Your task to perform on an android device: stop showing notifications on the lock screen Image 0: 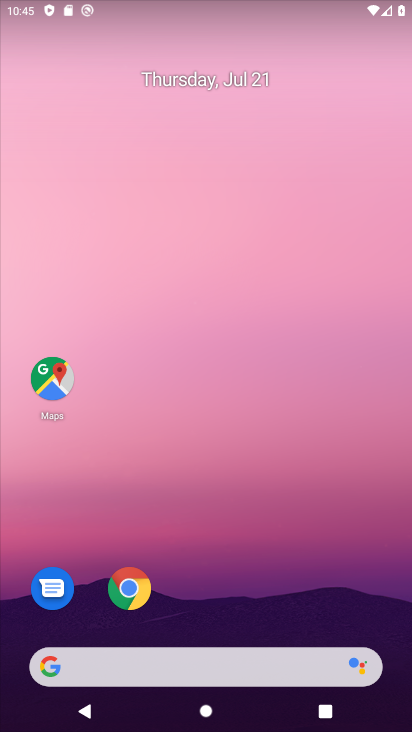
Step 0: drag from (209, 483) to (173, 6)
Your task to perform on an android device: stop showing notifications on the lock screen Image 1: 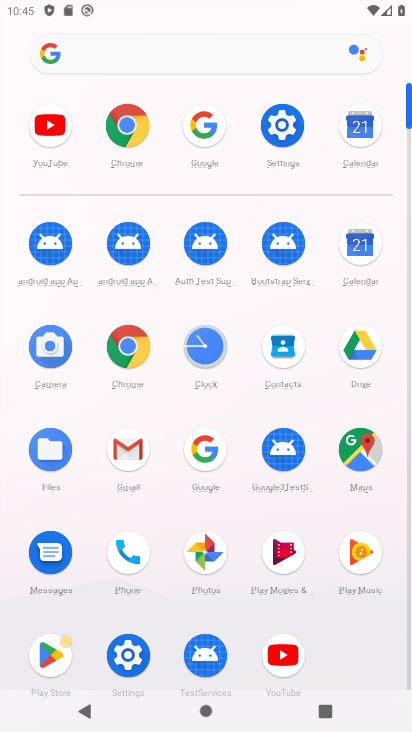
Step 1: click (129, 646)
Your task to perform on an android device: stop showing notifications on the lock screen Image 2: 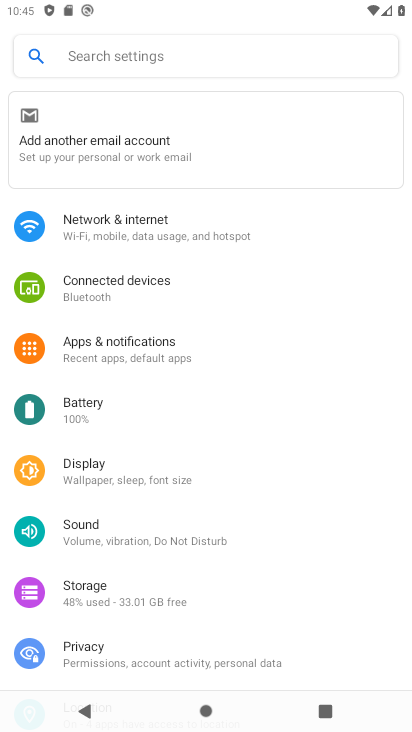
Step 2: drag from (190, 604) to (234, 296)
Your task to perform on an android device: stop showing notifications on the lock screen Image 3: 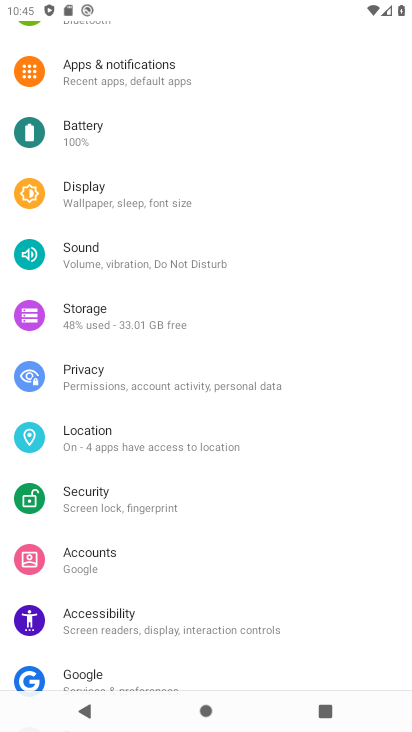
Step 3: drag from (226, 332) to (277, 714)
Your task to perform on an android device: stop showing notifications on the lock screen Image 4: 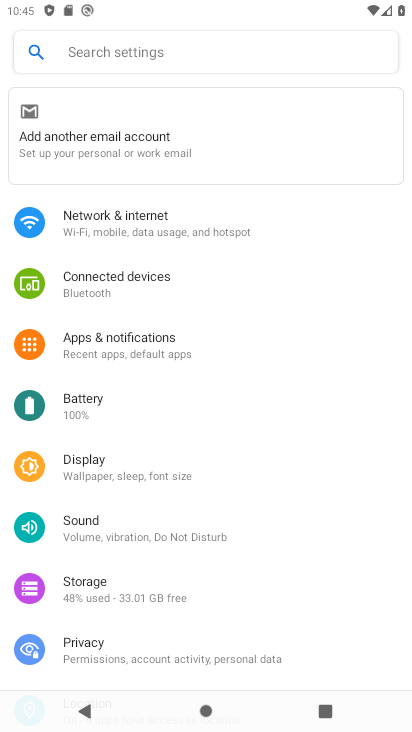
Step 4: click (126, 358)
Your task to perform on an android device: stop showing notifications on the lock screen Image 5: 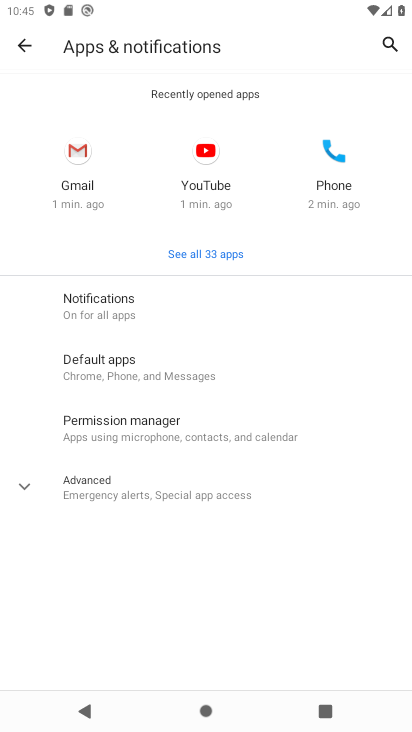
Step 5: click (136, 313)
Your task to perform on an android device: stop showing notifications on the lock screen Image 6: 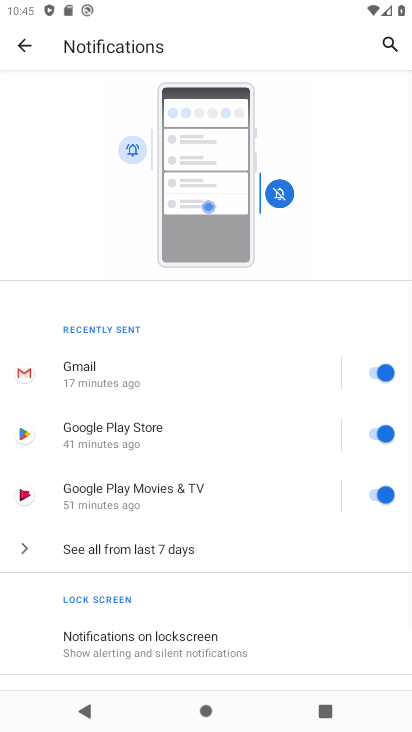
Step 6: drag from (157, 631) to (223, 303)
Your task to perform on an android device: stop showing notifications on the lock screen Image 7: 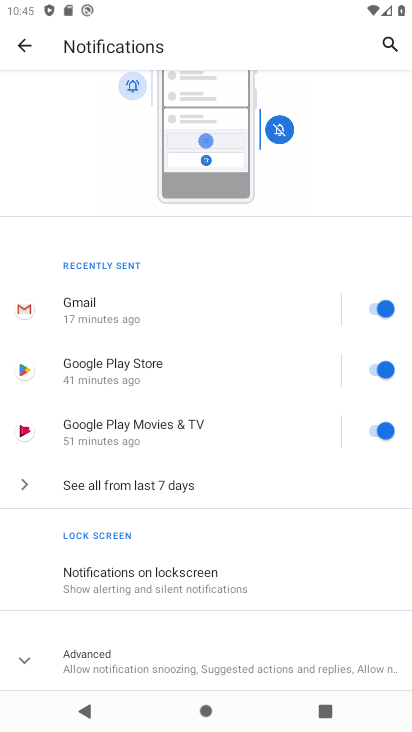
Step 7: click (132, 577)
Your task to perform on an android device: stop showing notifications on the lock screen Image 8: 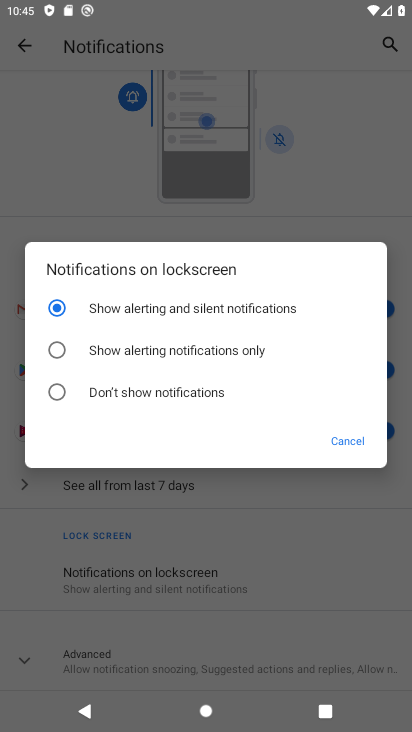
Step 8: click (55, 401)
Your task to perform on an android device: stop showing notifications on the lock screen Image 9: 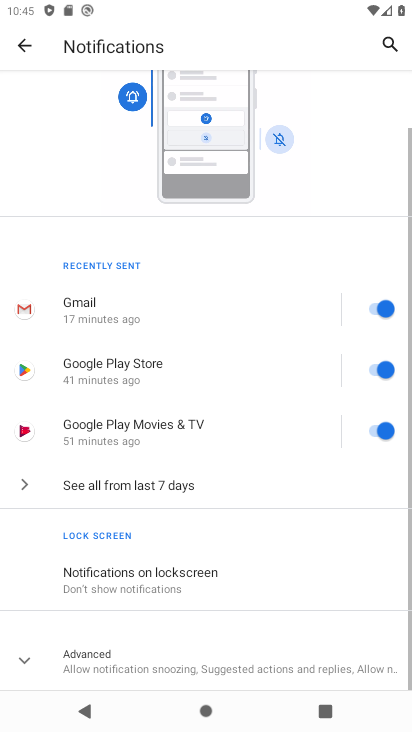
Step 9: task complete